Your task to perform on an android device: turn off smart reply in the gmail app Image 0: 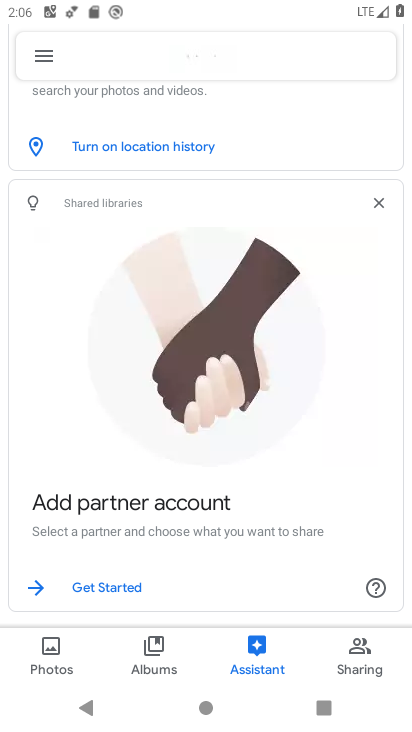
Step 0: press home button
Your task to perform on an android device: turn off smart reply in the gmail app Image 1: 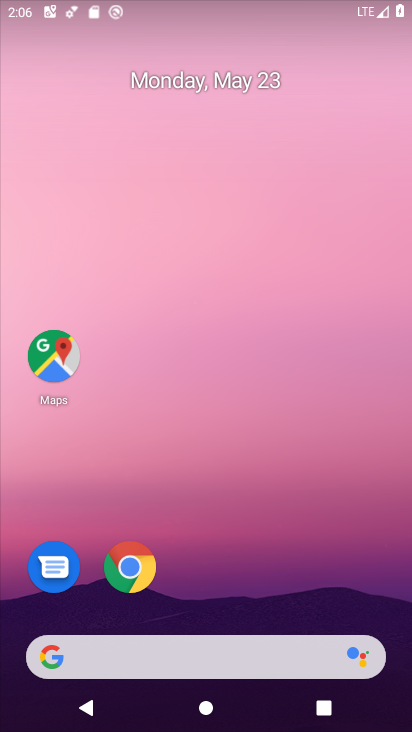
Step 1: drag from (274, 583) to (282, 235)
Your task to perform on an android device: turn off smart reply in the gmail app Image 2: 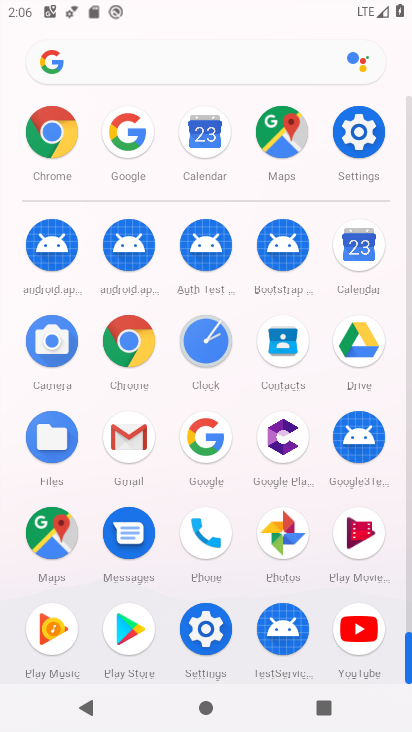
Step 2: click (130, 444)
Your task to perform on an android device: turn off smart reply in the gmail app Image 3: 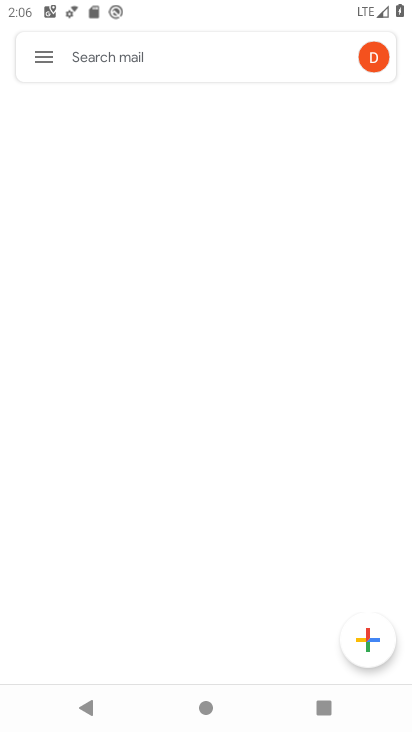
Step 3: click (38, 68)
Your task to perform on an android device: turn off smart reply in the gmail app Image 4: 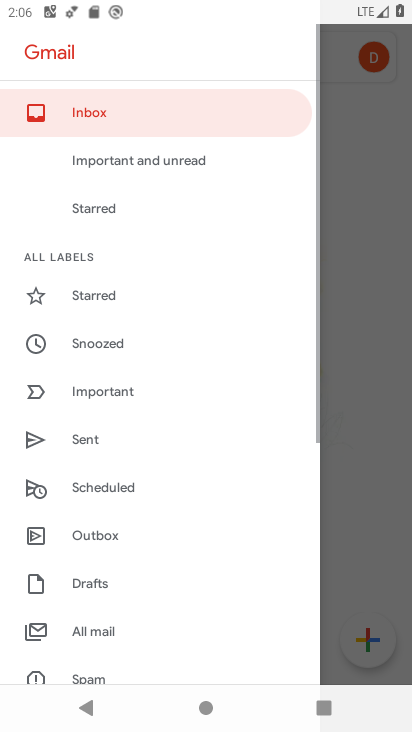
Step 4: drag from (149, 508) to (184, 330)
Your task to perform on an android device: turn off smart reply in the gmail app Image 5: 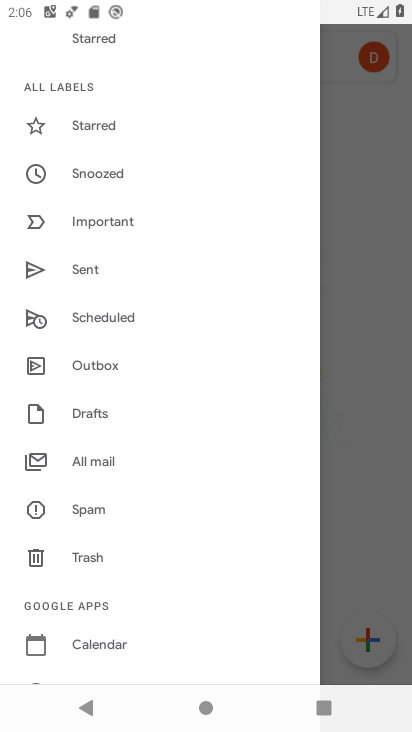
Step 5: drag from (126, 641) to (180, 329)
Your task to perform on an android device: turn off smart reply in the gmail app Image 6: 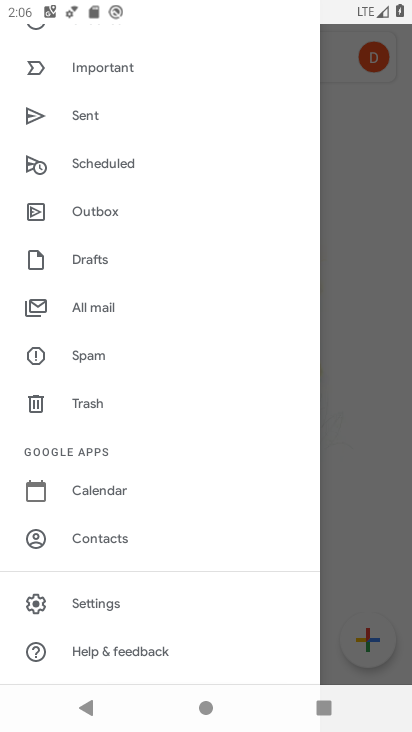
Step 6: click (151, 607)
Your task to perform on an android device: turn off smart reply in the gmail app Image 7: 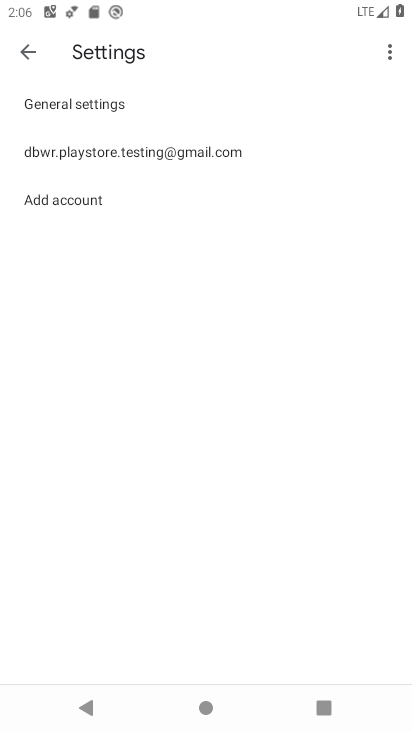
Step 7: click (191, 161)
Your task to perform on an android device: turn off smart reply in the gmail app Image 8: 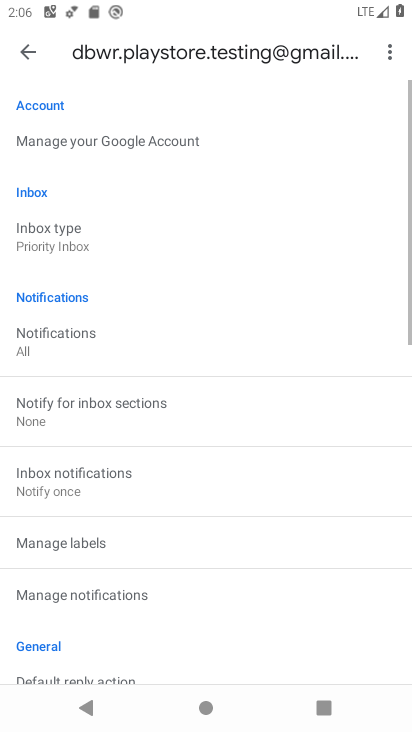
Step 8: drag from (165, 541) to (250, 191)
Your task to perform on an android device: turn off smart reply in the gmail app Image 9: 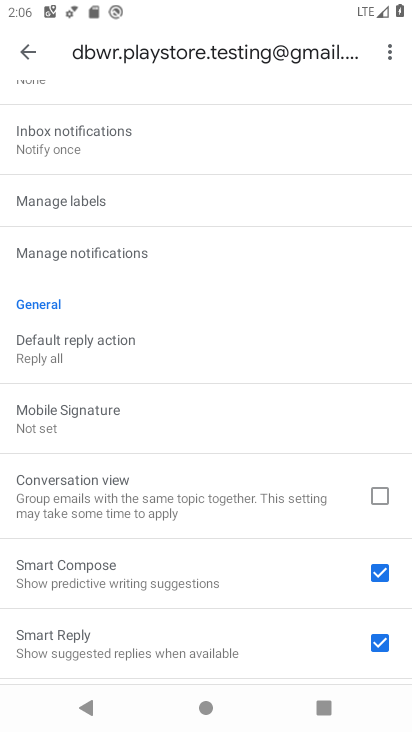
Step 9: drag from (258, 617) to (294, 470)
Your task to perform on an android device: turn off smart reply in the gmail app Image 10: 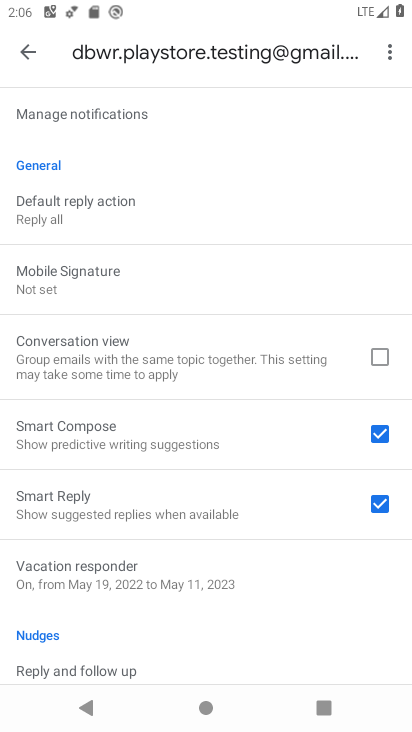
Step 10: click (370, 505)
Your task to perform on an android device: turn off smart reply in the gmail app Image 11: 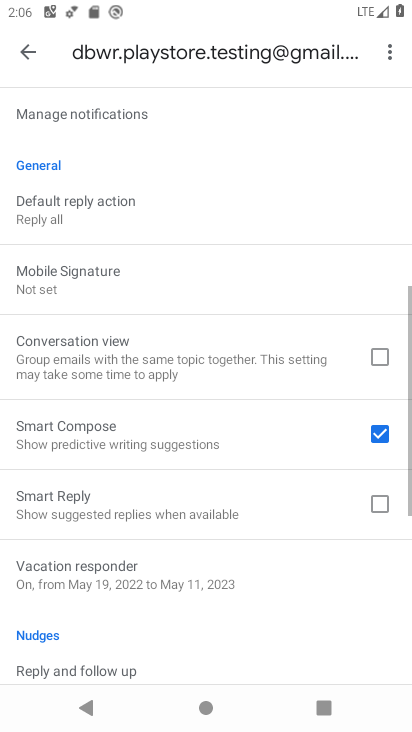
Step 11: task complete